Your task to perform on an android device: turn off sleep mode Image 0: 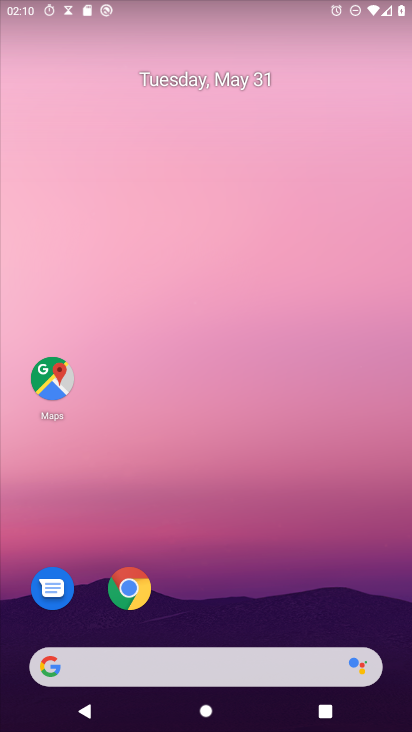
Step 0: drag from (233, 639) to (175, 33)
Your task to perform on an android device: turn off sleep mode Image 1: 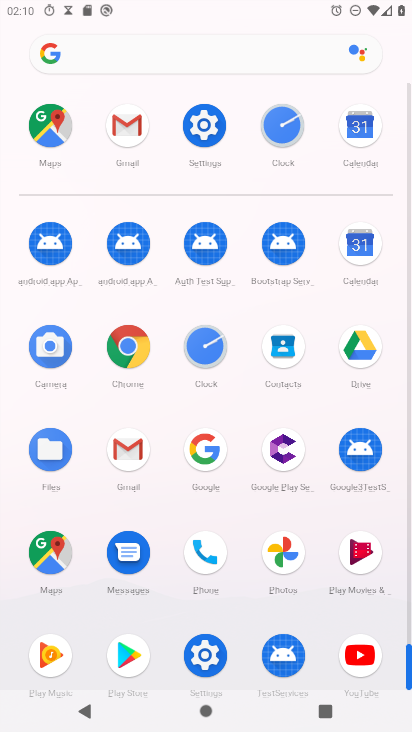
Step 1: click (191, 131)
Your task to perform on an android device: turn off sleep mode Image 2: 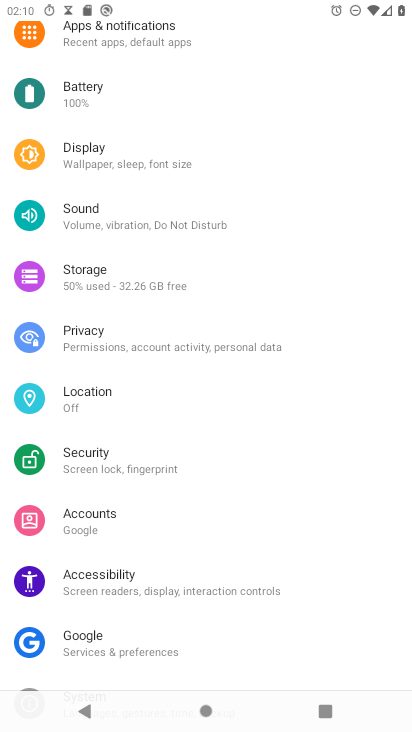
Step 2: drag from (200, 144) to (257, 698)
Your task to perform on an android device: turn off sleep mode Image 3: 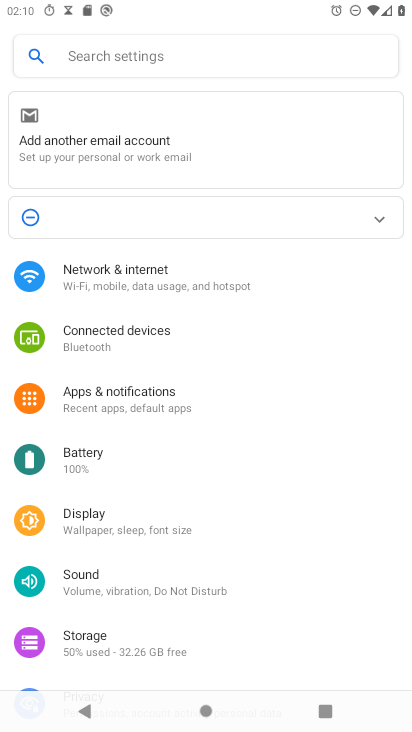
Step 3: click (166, 527)
Your task to perform on an android device: turn off sleep mode Image 4: 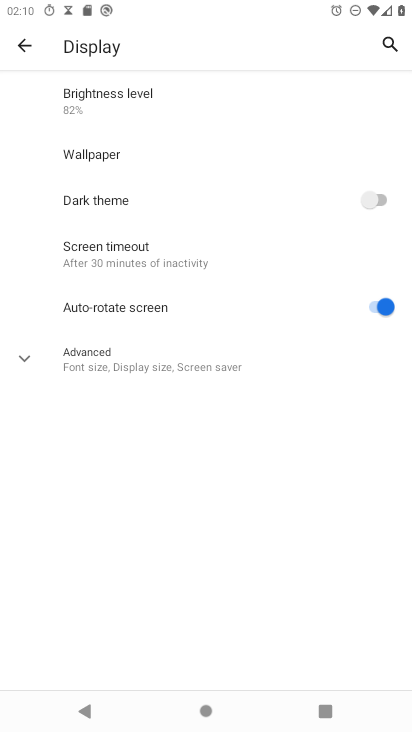
Step 4: task complete